Your task to perform on an android device: Open the calendar and show me this week's events? Image 0: 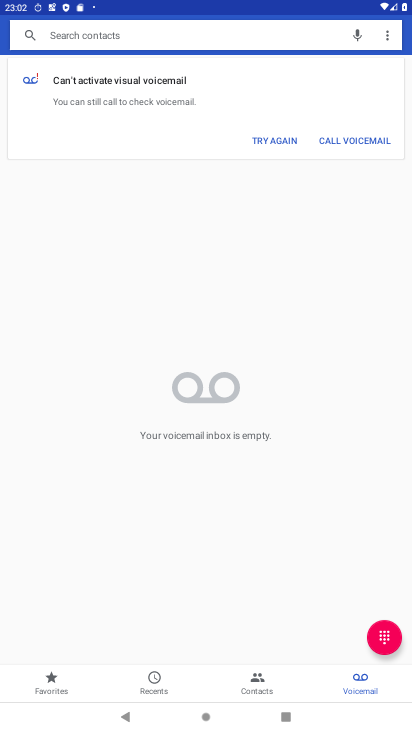
Step 0: press home button
Your task to perform on an android device: Open the calendar and show me this week's events? Image 1: 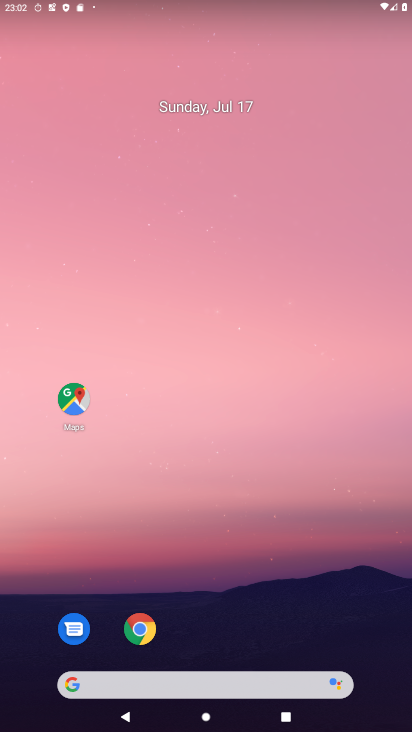
Step 1: drag from (244, 599) to (233, 179)
Your task to perform on an android device: Open the calendar and show me this week's events? Image 2: 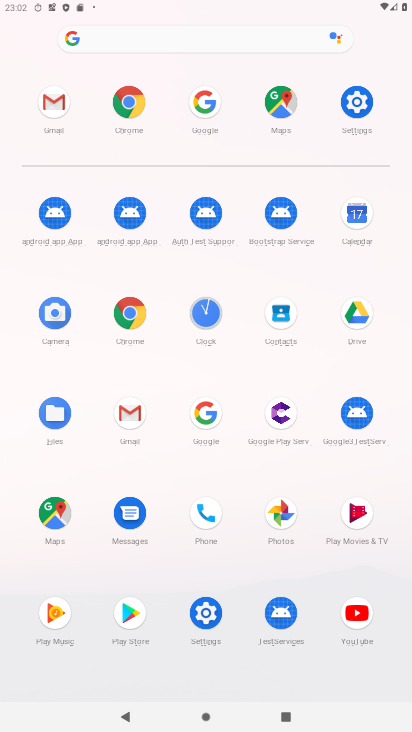
Step 2: click (357, 211)
Your task to perform on an android device: Open the calendar and show me this week's events? Image 3: 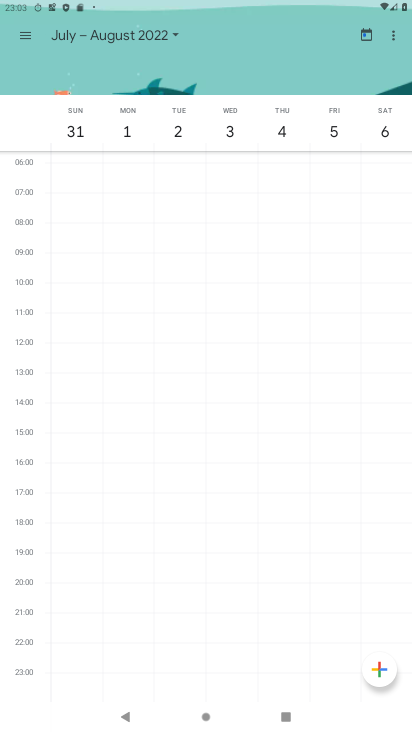
Step 3: click (171, 32)
Your task to perform on an android device: Open the calendar and show me this week's events? Image 4: 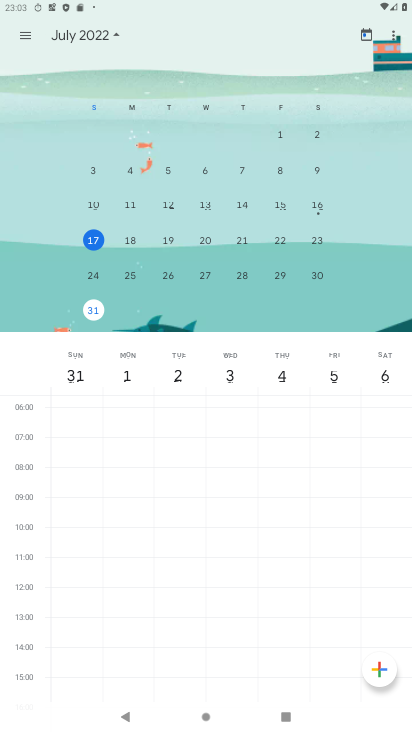
Step 4: click (26, 34)
Your task to perform on an android device: Open the calendar and show me this week's events? Image 5: 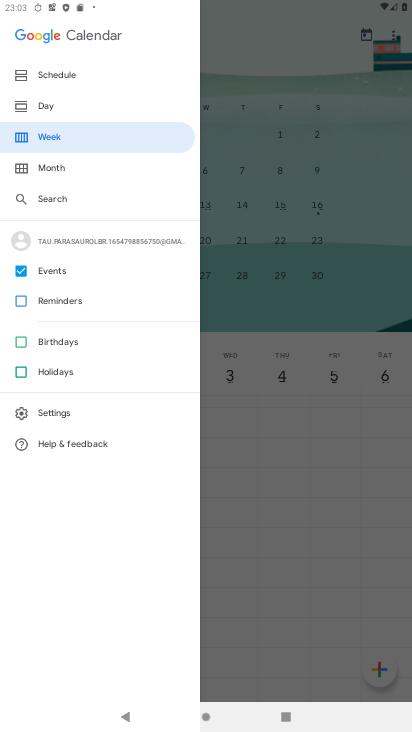
Step 5: click (43, 141)
Your task to perform on an android device: Open the calendar and show me this week's events? Image 6: 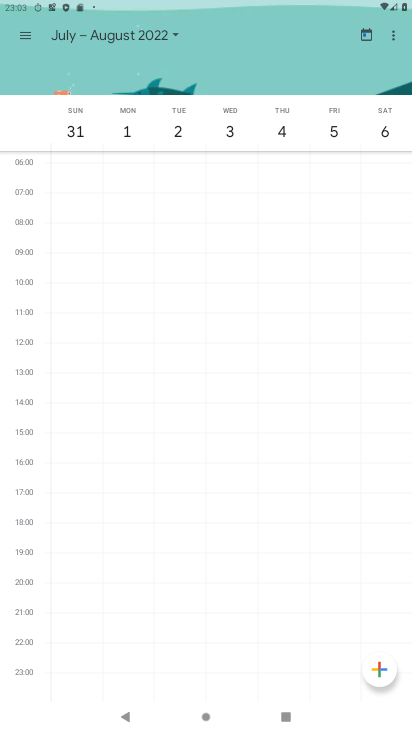
Step 6: task complete